Your task to perform on an android device: create a new album in the google photos Image 0: 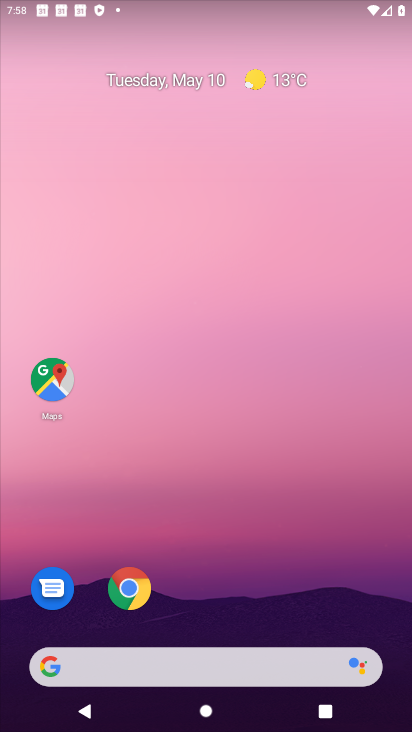
Step 0: drag from (223, 617) to (244, 13)
Your task to perform on an android device: create a new album in the google photos Image 1: 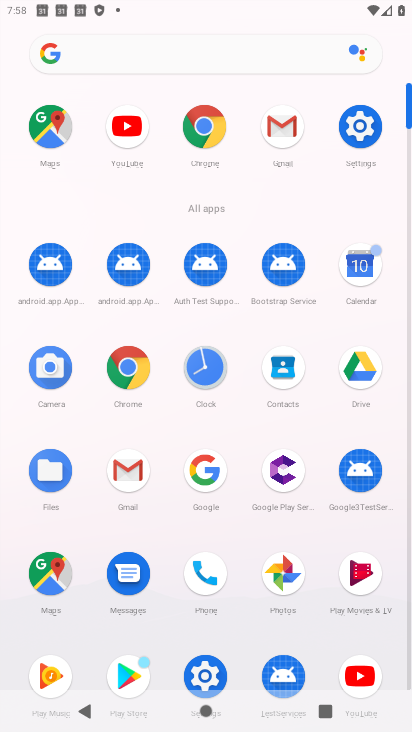
Step 1: click (271, 565)
Your task to perform on an android device: create a new album in the google photos Image 2: 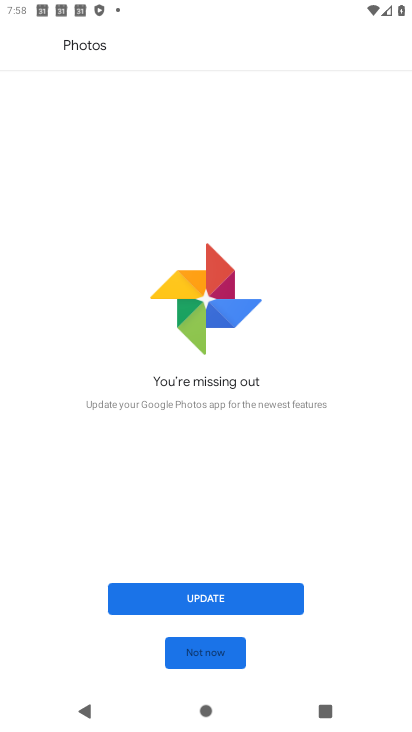
Step 2: click (201, 659)
Your task to perform on an android device: create a new album in the google photos Image 3: 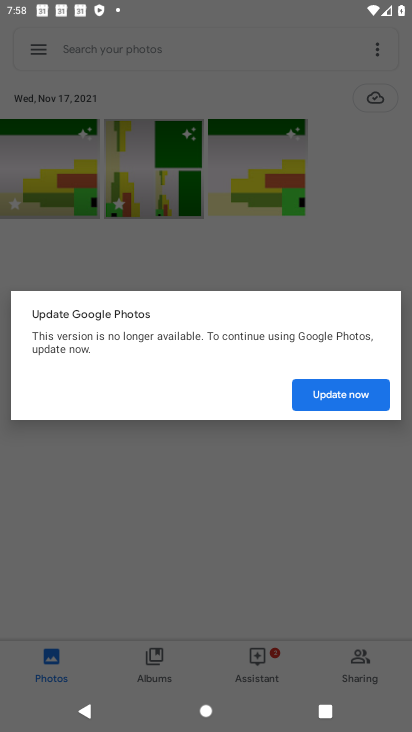
Step 3: click (353, 387)
Your task to perform on an android device: create a new album in the google photos Image 4: 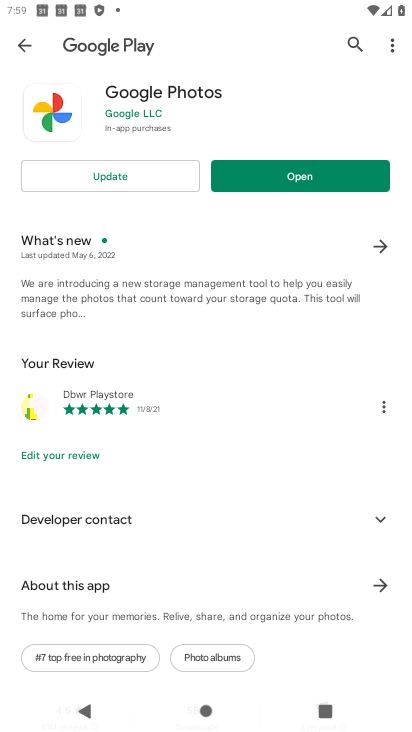
Step 4: click (259, 182)
Your task to perform on an android device: create a new album in the google photos Image 5: 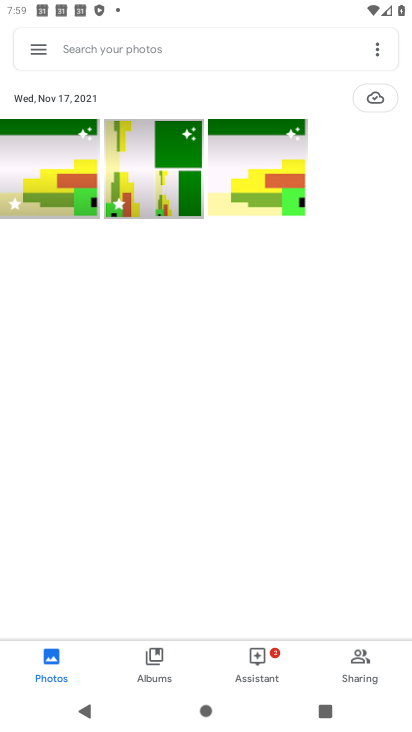
Step 5: click (76, 146)
Your task to perform on an android device: create a new album in the google photos Image 6: 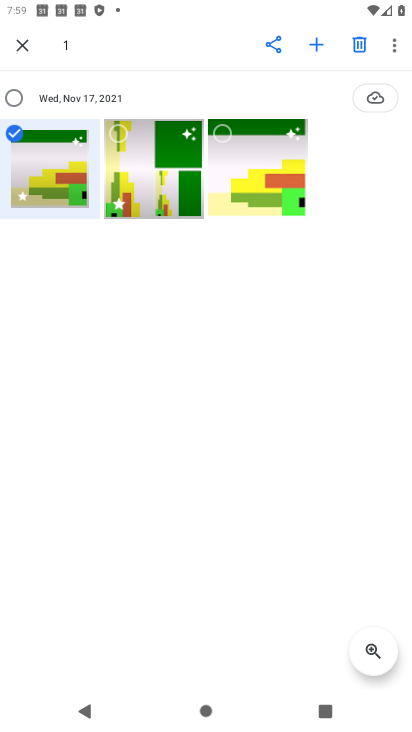
Step 6: click (123, 131)
Your task to perform on an android device: create a new album in the google photos Image 7: 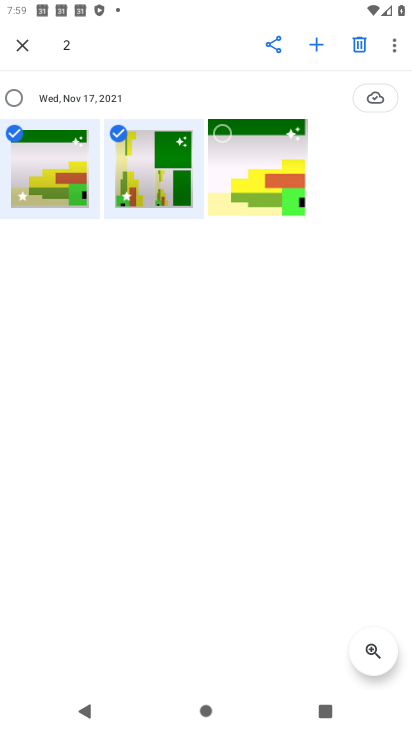
Step 7: click (317, 43)
Your task to perform on an android device: create a new album in the google photos Image 8: 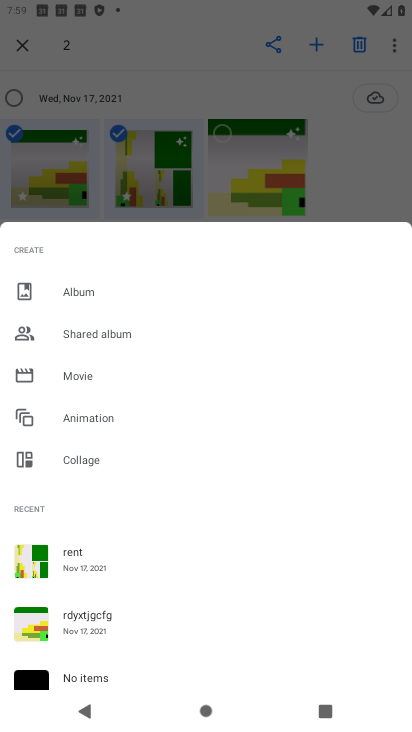
Step 8: click (223, 292)
Your task to perform on an android device: create a new album in the google photos Image 9: 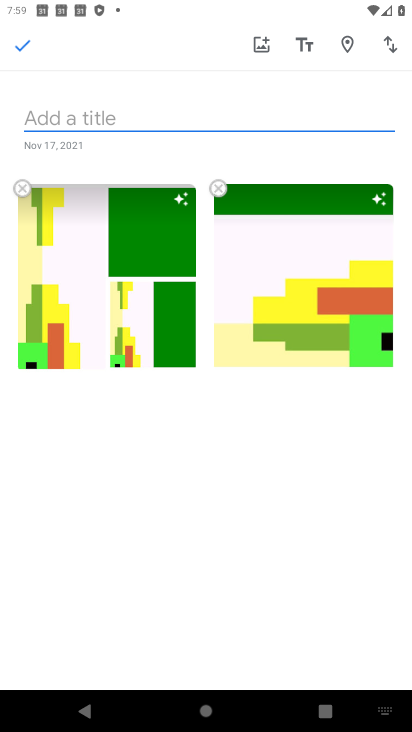
Step 9: type "nash"
Your task to perform on an android device: create a new album in the google photos Image 10: 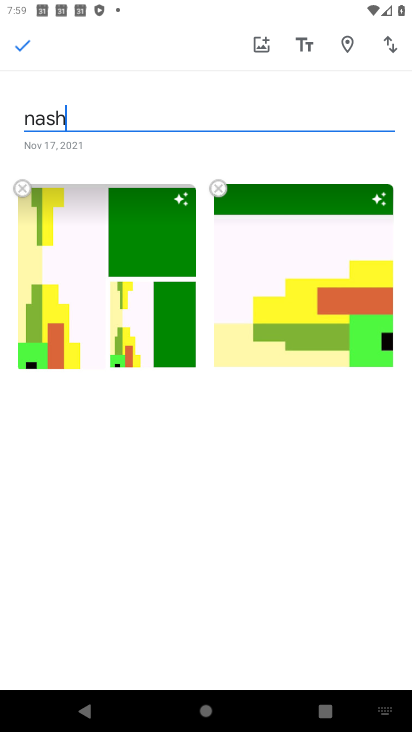
Step 10: click (19, 37)
Your task to perform on an android device: create a new album in the google photos Image 11: 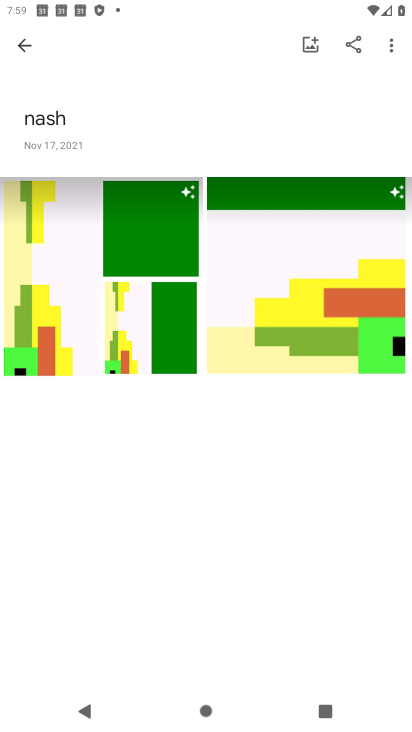
Step 11: task complete